Your task to perform on an android device: toggle priority inbox in the gmail app Image 0: 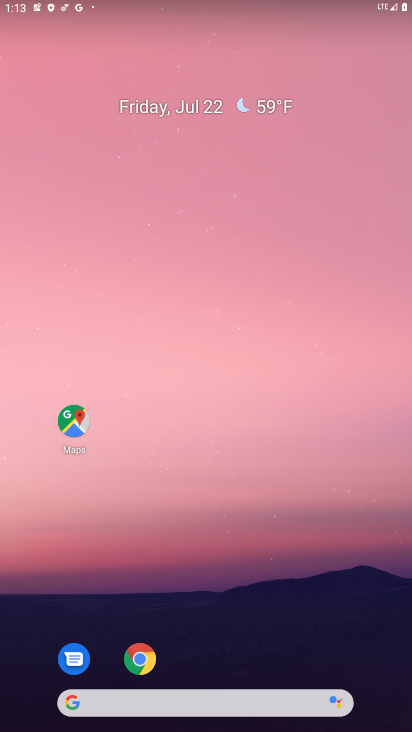
Step 0: drag from (223, 630) to (250, 6)
Your task to perform on an android device: toggle priority inbox in the gmail app Image 1: 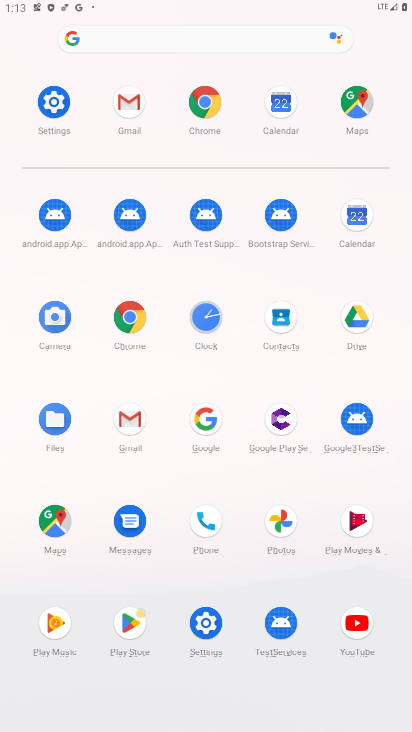
Step 1: click (141, 101)
Your task to perform on an android device: toggle priority inbox in the gmail app Image 2: 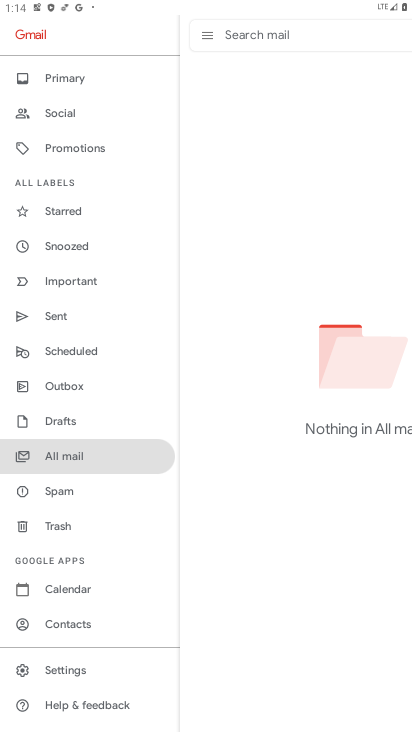
Step 2: drag from (80, 584) to (38, 147)
Your task to perform on an android device: toggle priority inbox in the gmail app Image 3: 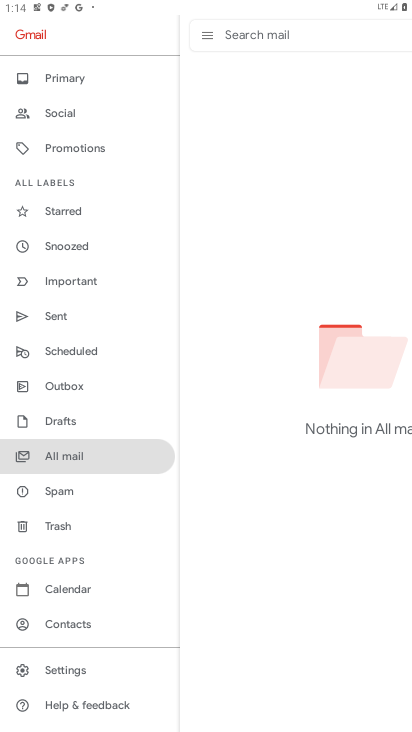
Step 3: click (78, 669)
Your task to perform on an android device: toggle priority inbox in the gmail app Image 4: 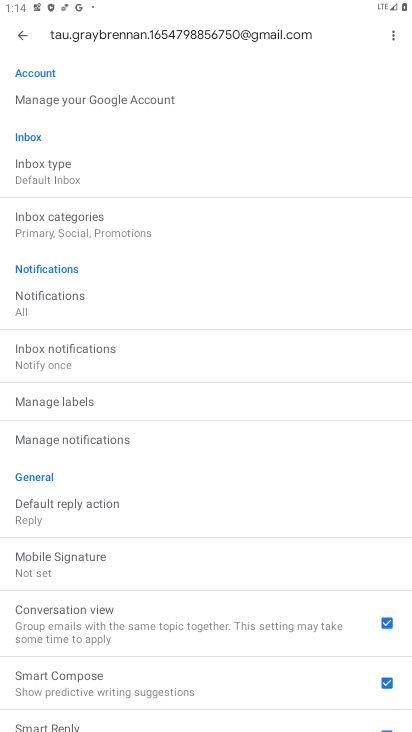
Step 4: click (79, 235)
Your task to perform on an android device: toggle priority inbox in the gmail app Image 5: 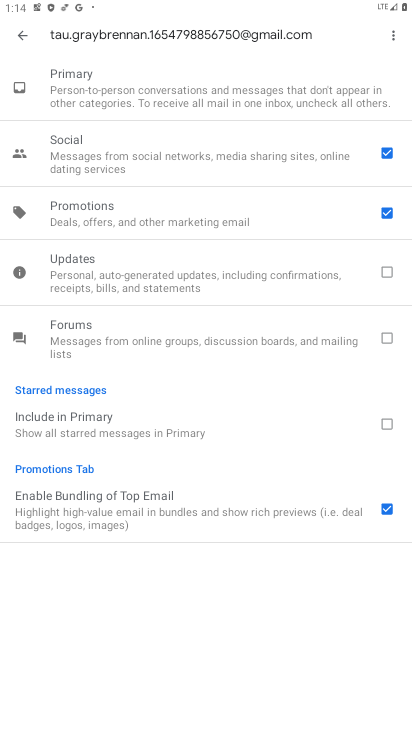
Step 5: click (25, 34)
Your task to perform on an android device: toggle priority inbox in the gmail app Image 6: 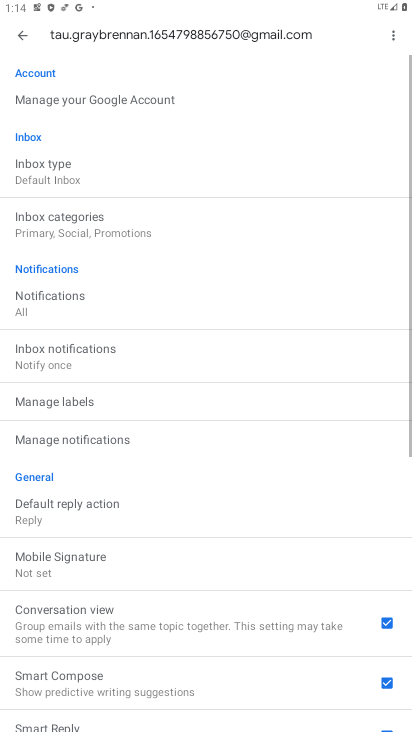
Step 6: click (58, 177)
Your task to perform on an android device: toggle priority inbox in the gmail app Image 7: 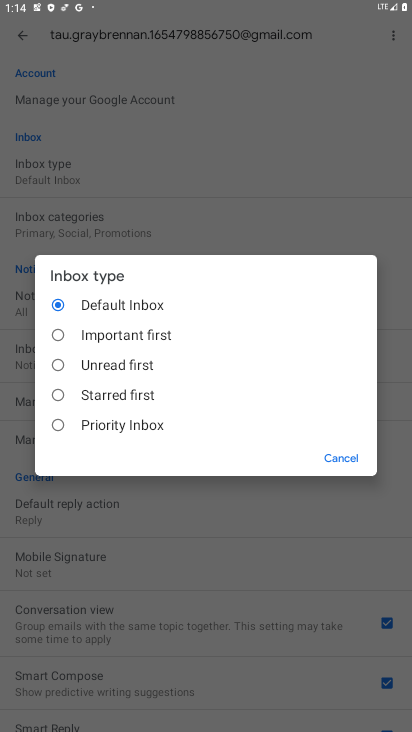
Step 7: click (103, 427)
Your task to perform on an android device: toggle priority inbox in the gmail app Image 8: 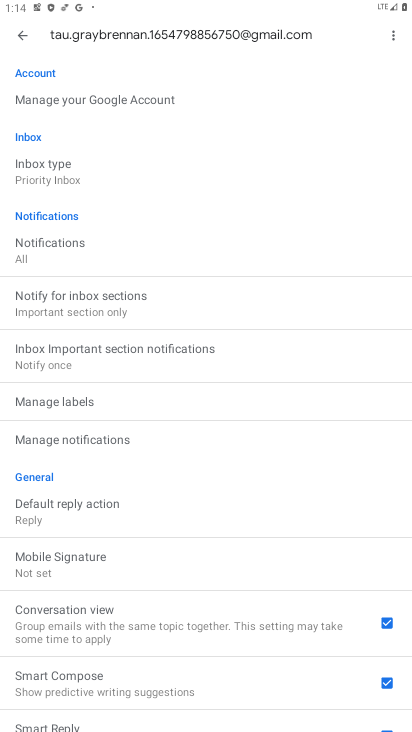
Step 8: task complete